Your task to perform on an android device: delete location history Image 0: 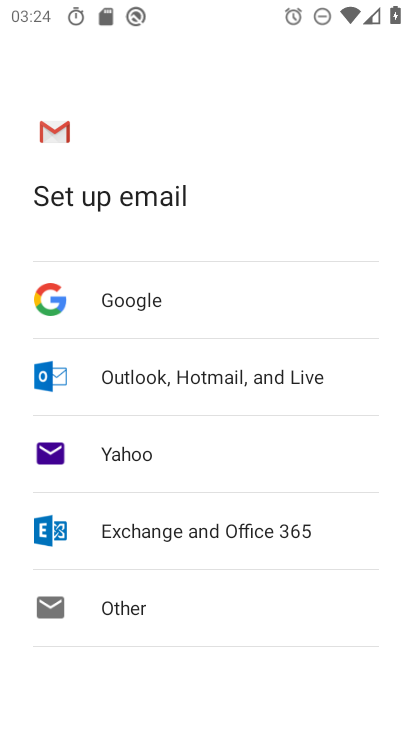
Step 0: press home button
Your task to perform on an android device: delete location history Image 1: 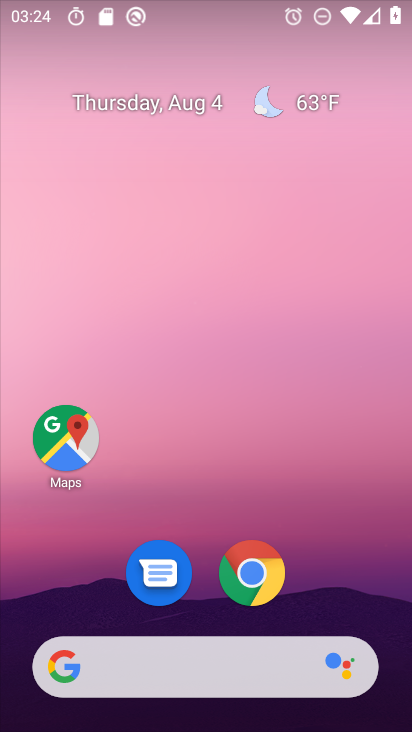
Step 1: drag from (375, 553) to (313, 102)
Your task to perform on an android device: delete location history Image 2: 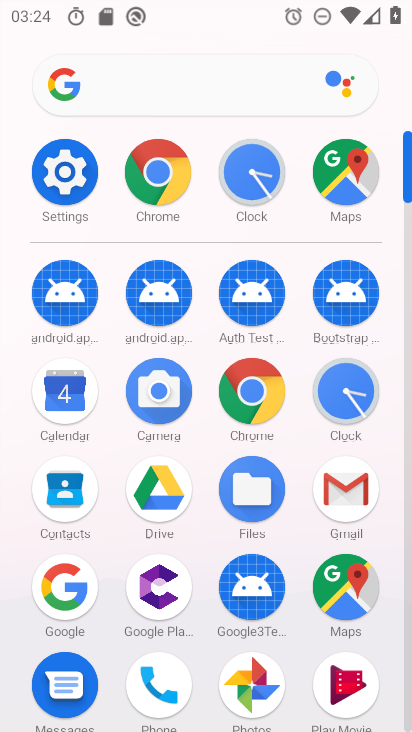
Step 2: click (334, 583)
Your task to perform on an android device: delete location history Image 3: 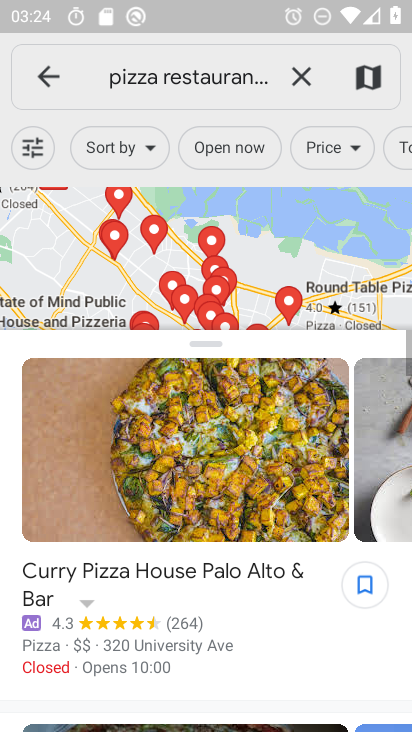
Step 3: click (42, 65)
Your task to perform on an android device: delete location history Image 4: 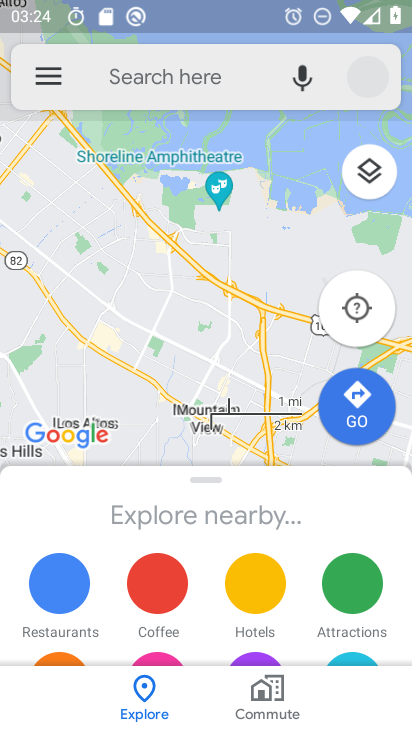
Step 4: click (42, 65)
Your task to perform on an android device: delete location history Image 5: 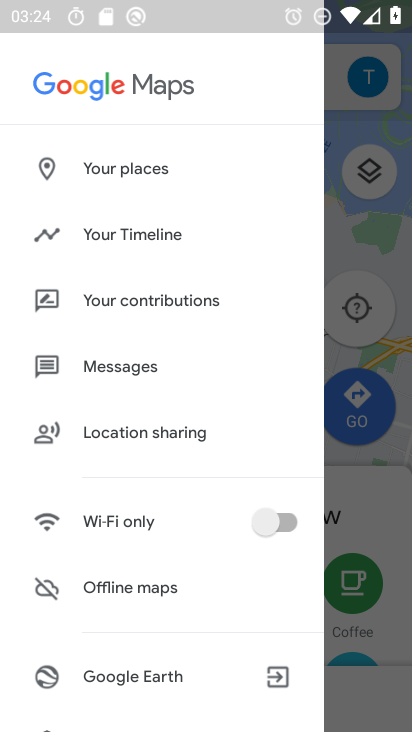
Step 5: drag from (178, 585) to (192, 188)
Your task to perform on an android device: delete location history Image 6: 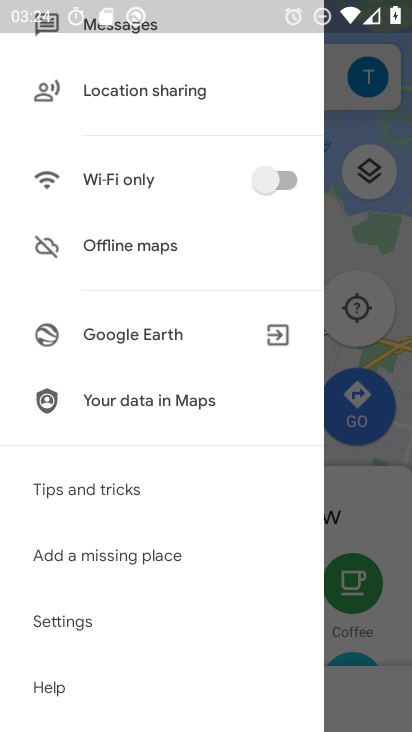
Step 6: drag from (183, 612) to (177, 180)
Your task to perform on an android device: delete location history Image 7: 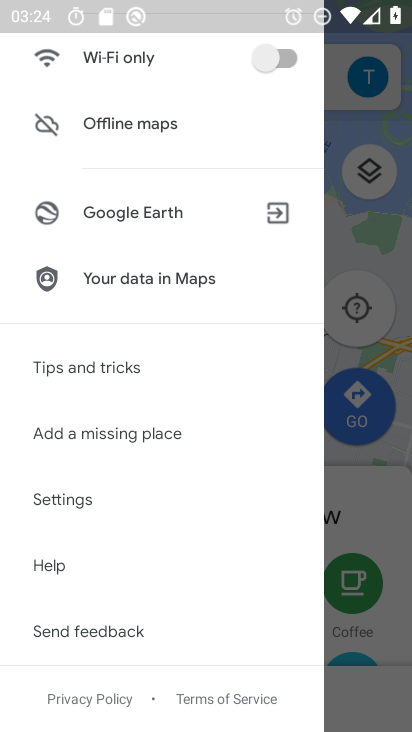
Step 7: click (82, 493)
Your task to perform on an android device: delete location history Image 8: 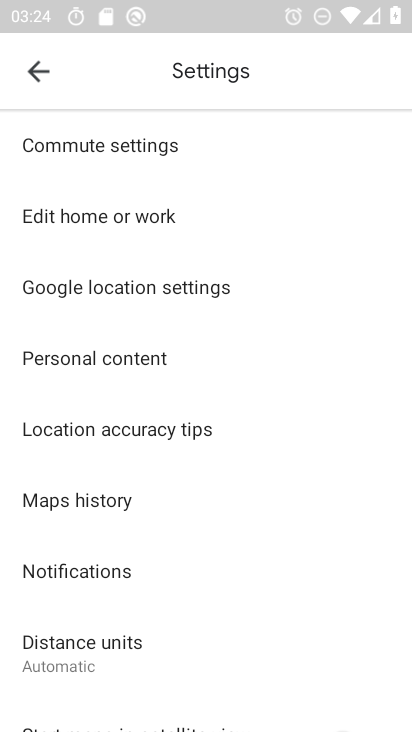
Step 8: click (109, 516)
Your task to perform on an android device: delete location history Image 9: 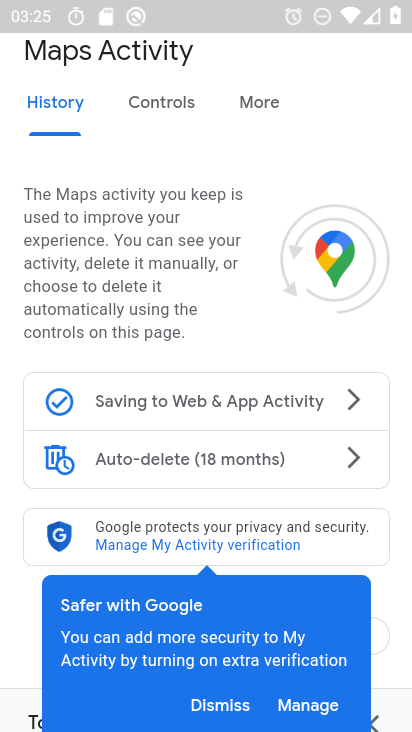
Step 9: click (235, 700)
Your task to perform on an android device: delete location history Image 10: 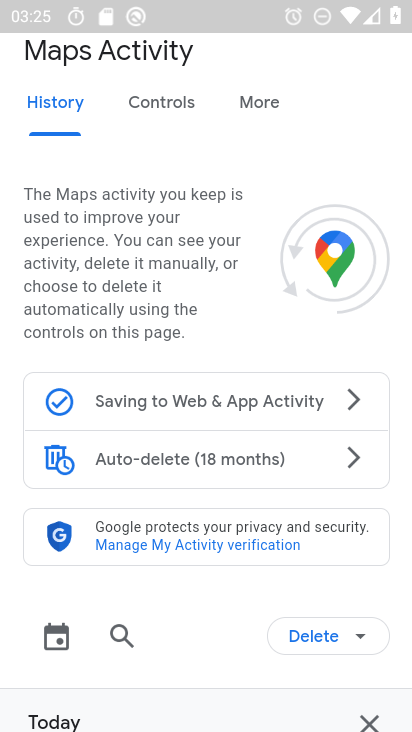
Step 10: drag from (360, 586) to (382, 267)
Your task to perform on an android device: delete location history Image 11: 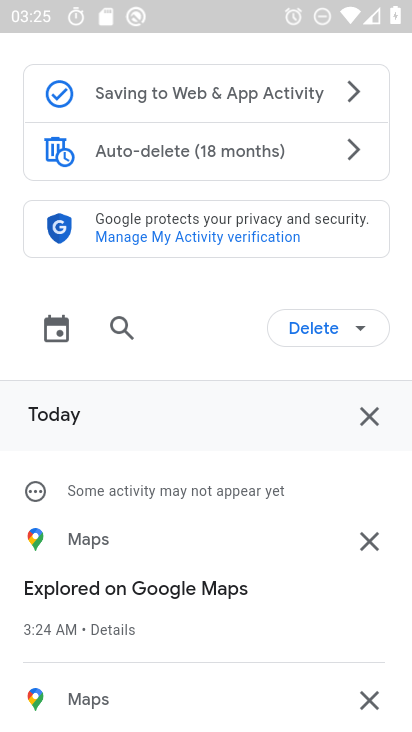
Step 11: click (370, 327)
Your task to perform on an android device: delete location history Image 12: 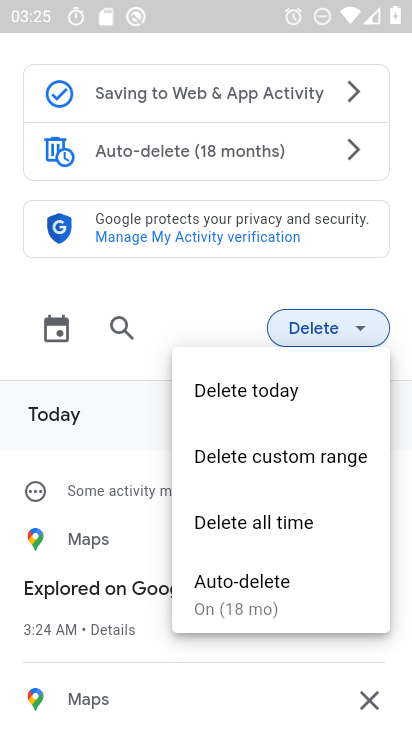
Step 12: click (365, 324)
Your task to perform on an android device: delete location history Image 13: 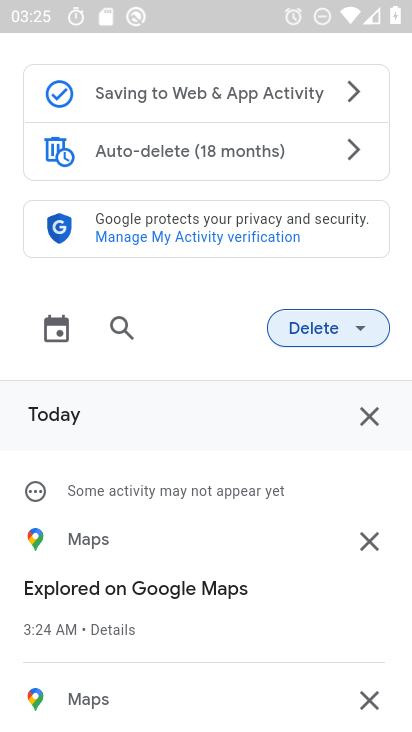
Step 13: click (365, 324)
Your task to perform on an android device: delete location history Image 14: 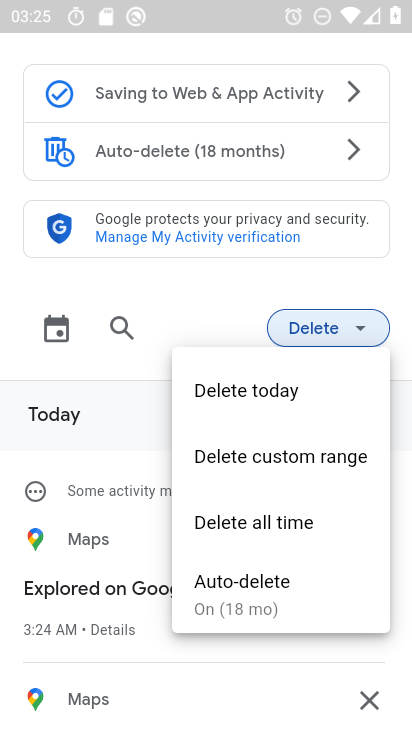
Step 14: click (299, 525)
Your task to perform on an android device: delete location history Image 15: 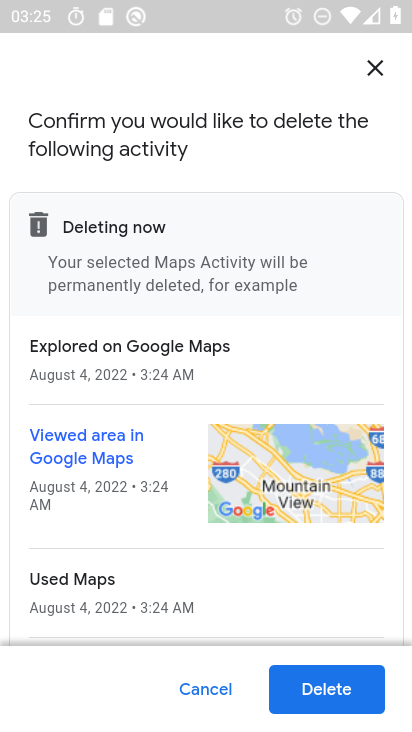
Step 15: click (313, 708)
Your task to perform on an android device: delete location history Image 16: 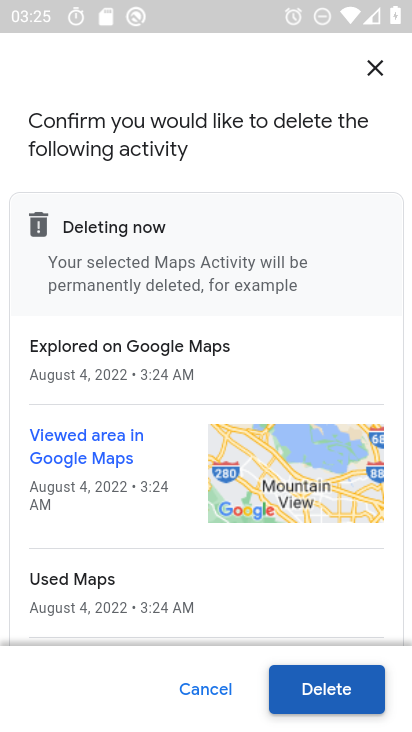
Step 16: click (319, 693)
Your task to perform on an android device: delete location history Image 17: 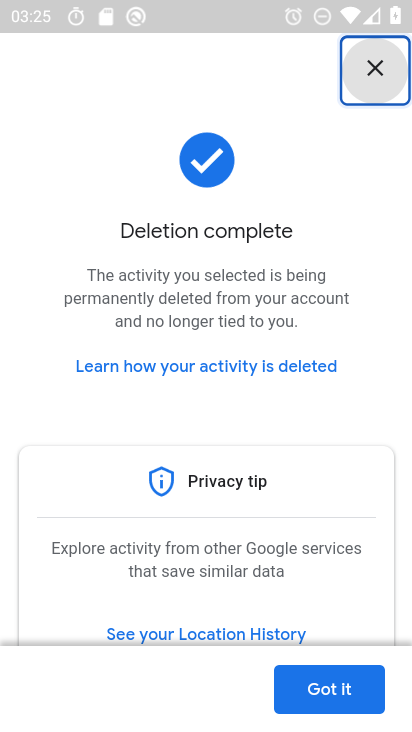
Step 17: task complete